Your task to perform on an android device: change keyboard looks Image 0: 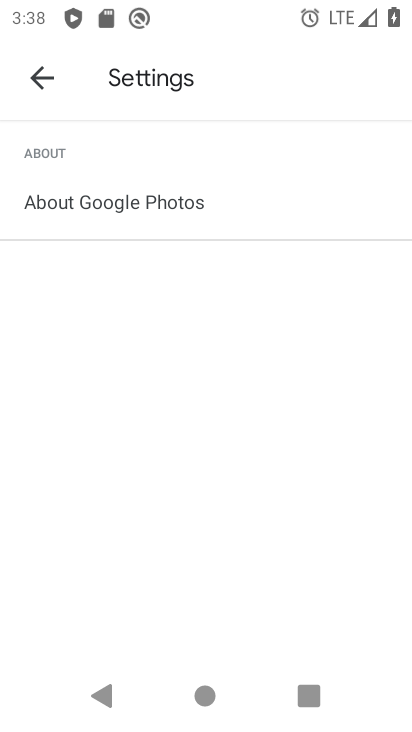
Step 0: press home button
Your task to perform on an android device: change keyboard looks Image 1: 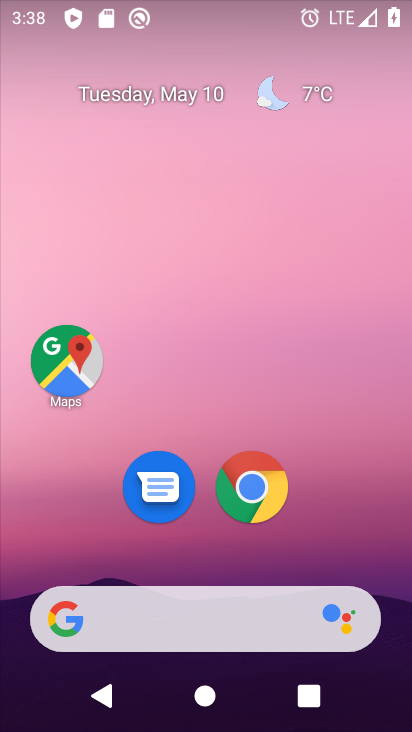
Step 1: drag from (340, 425) to (302, 27)
Your task to perform on an android device: change keyboard looks Image 2: 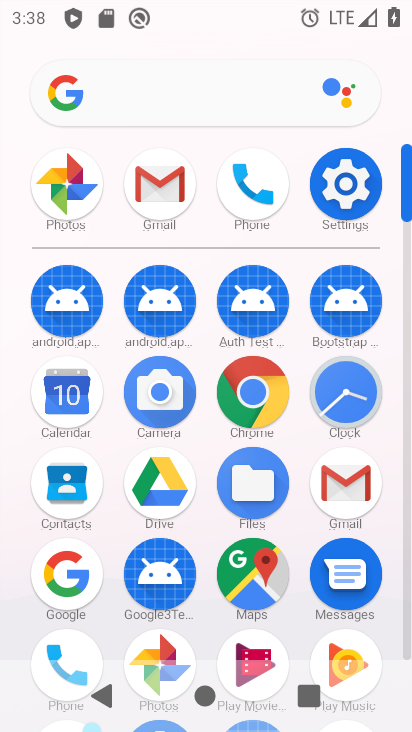
Step 2: click (329, 183)
Your task to perform on an android device: change keyboard looks Image 3: 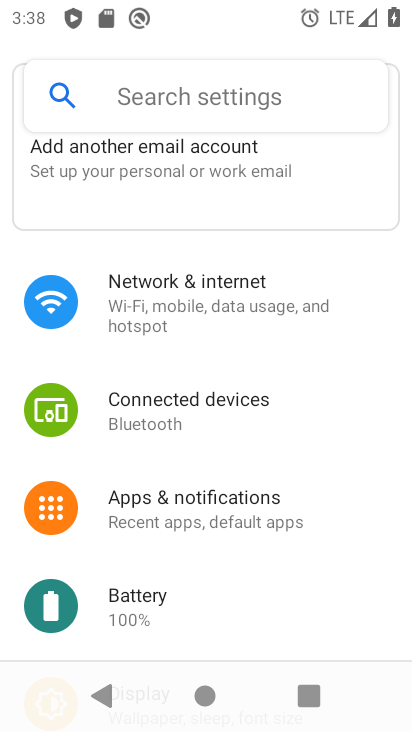
Step 3: drag from (225, 583) to (280, 42)
Your task to perform on an android device: change keyboard looks Image 4: 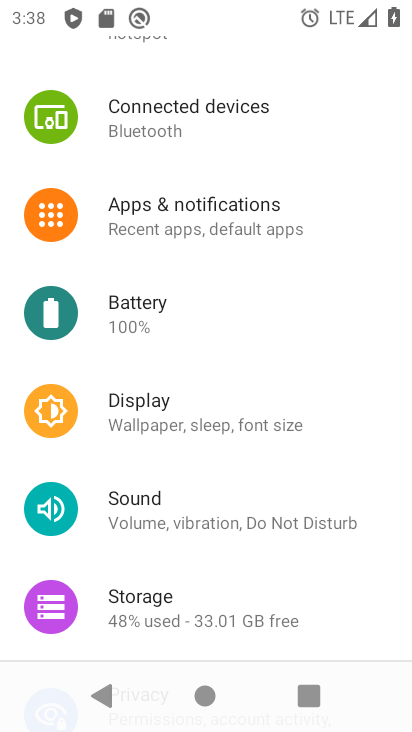
Step 4: drag from (270, 570) to (233, 57)
Your task to perform on an android device: change keyboard looks Image 5: 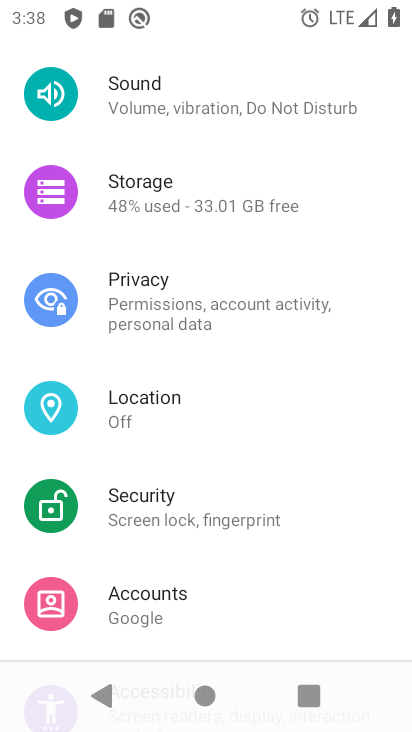
Step 5: drag from (192, 588) to (219, 131)
Your task to perform on an android device: change keyboard looks Image 6: 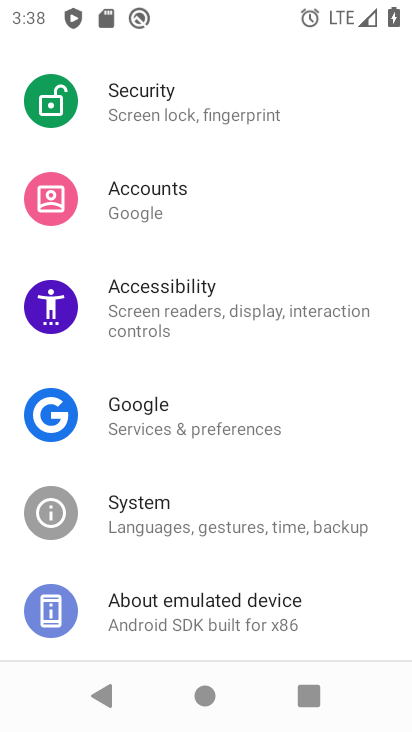
Step 6: drag from (190, 585) to (211, 285)
Your task to perform on an android device: change keyboard looks Image 7: 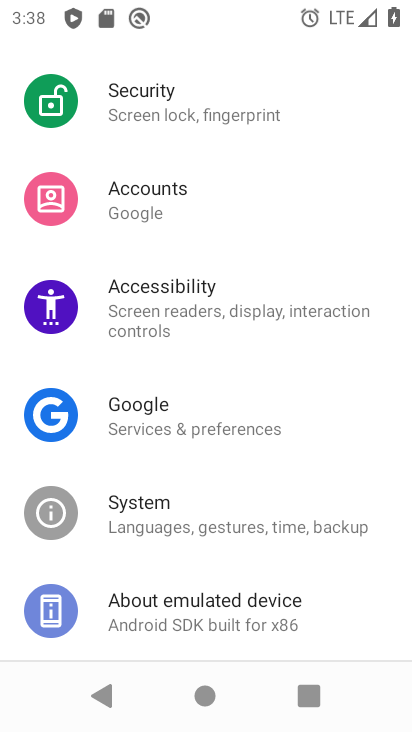
Step 7: click (151, 503)
Your task to perform on an android device: change keyboard looks Image 8: 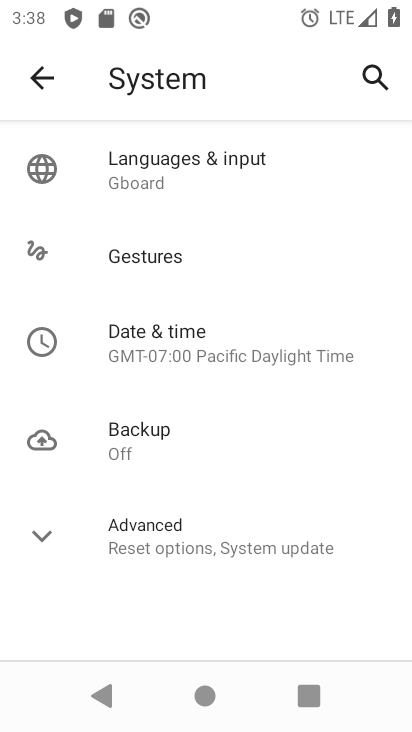
Step 8: click (169, 165)
Your task to perform on an android device: change keyboard looks Image 9: 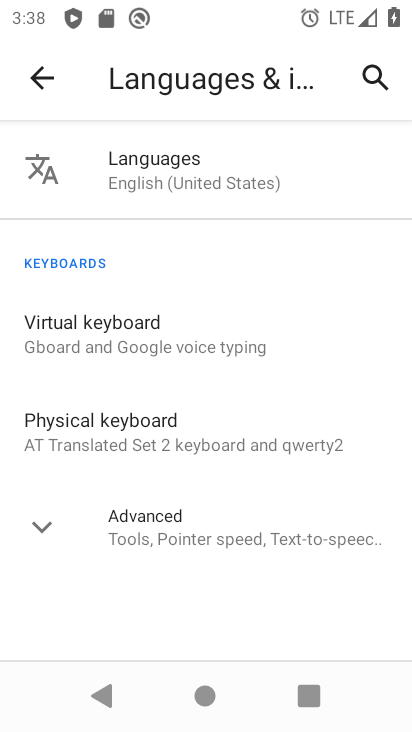
Step 9: click (167, 358)
Your task to perform on an android device: change keyboard looks Image 10: 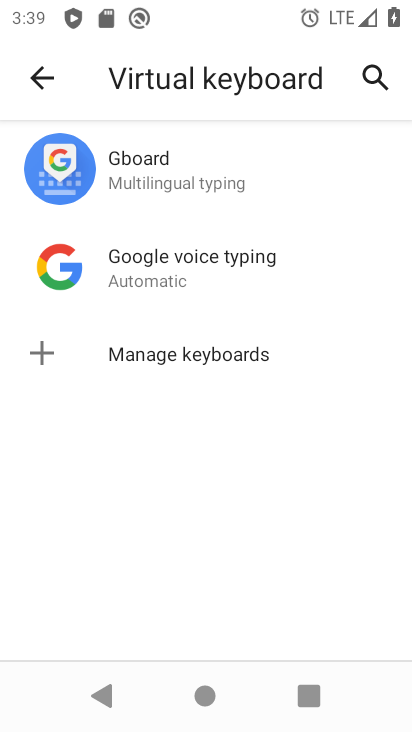
Step 10: click (172, 165)
Your task to perform on an android device: change keyboard looks Image 11: 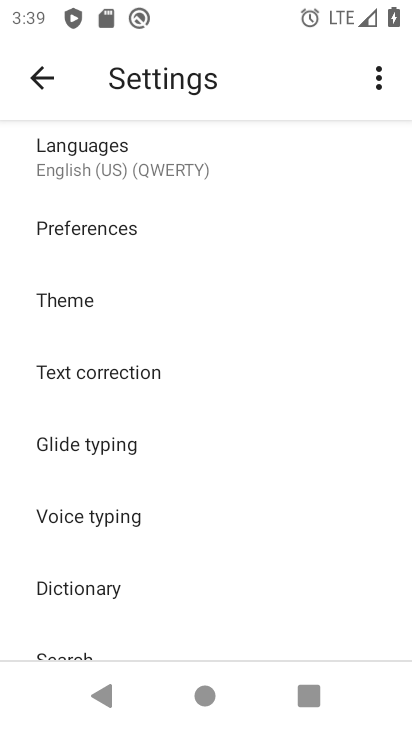
Step 11: drag from (175, 524) to (194, 401)
Your task to perform on an android device: change keyboard looks Image 12: 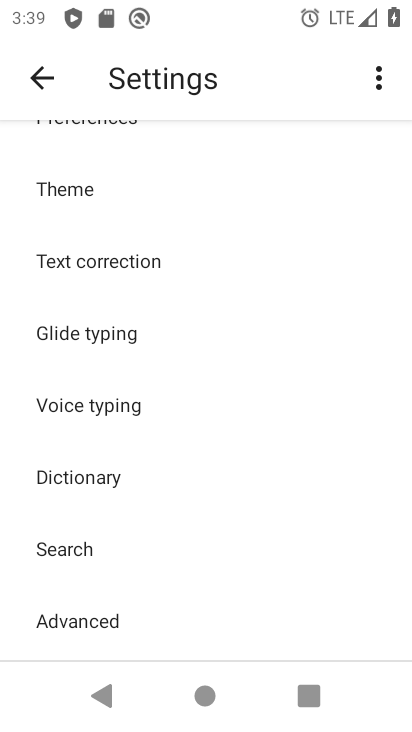
Step 12: click (56, 178)
Your task to perform on an android device: change keyboard looks Image 13: 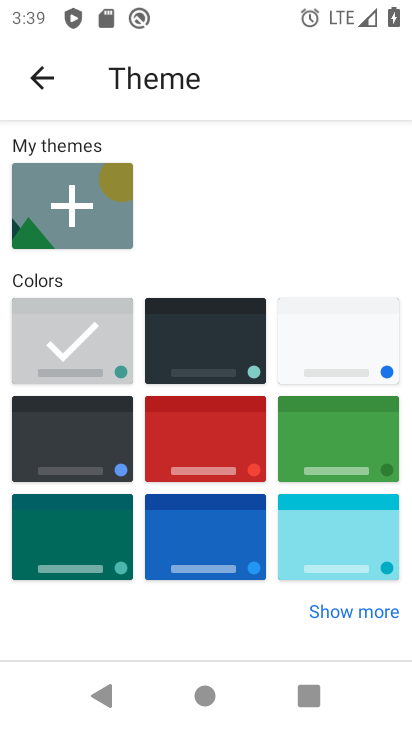
Step 13: click (350, 352)
Your task to perform on an android device: change keyboard looks Image 14: 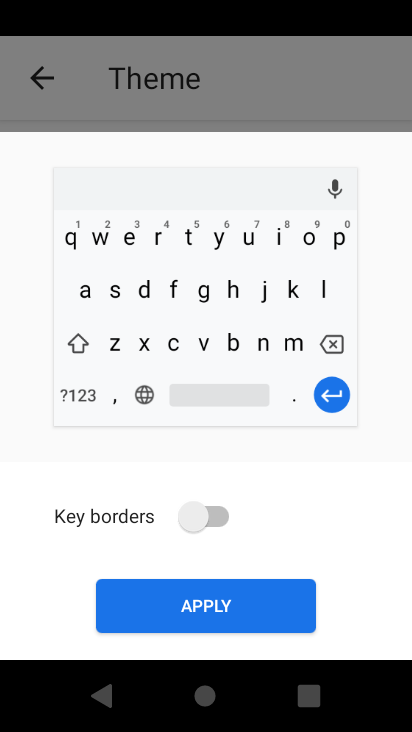
Step 14: click (231, 618)
Your task to perform on an android device: change keyboard looks Image 15: 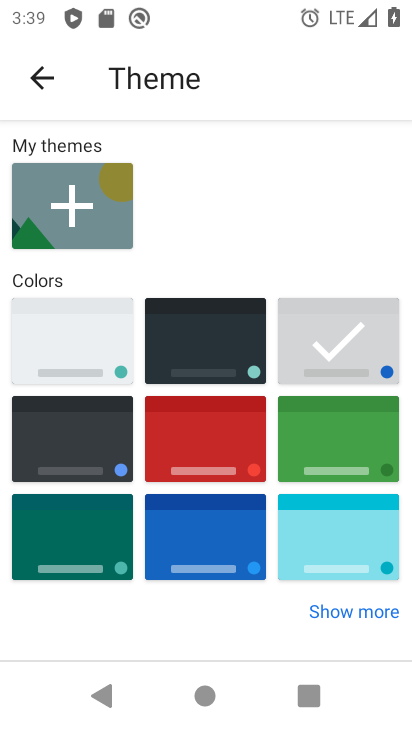
Step 15: task complete